Your task to perform on an android device: uninstall "Pinterest" Image 0: 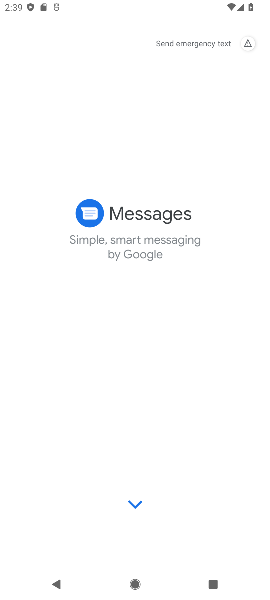
Step 0: press home button
Your task to perform on an android device: uninstall "Pinterest" Image 1: 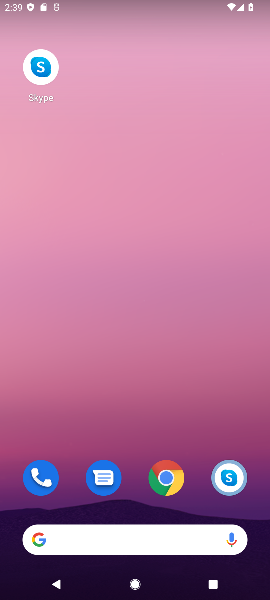
Step 1: press home button
Your task to perform on an android device: uninstall "Pinterest" Image 2: 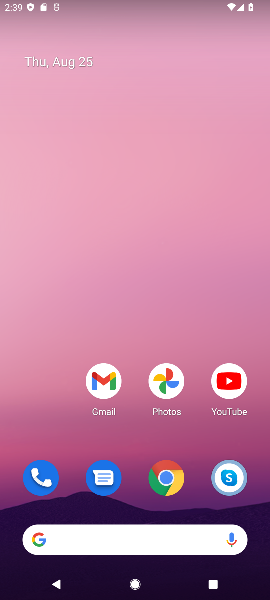
Step 2: drag from (94, 545) to (190, 101)
Your task to perform on an android device: uninstall "Pinterest" Image 3: 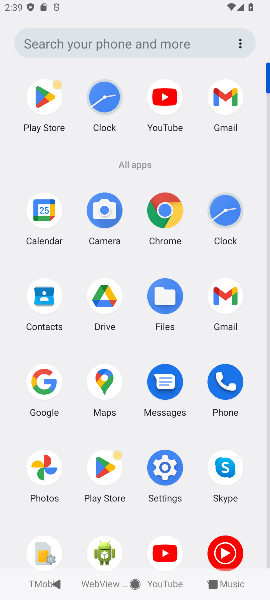
Step 3: drag from (105, 471) to (152, 248)
Your task to perform on an android device: uninstall "Pinterest" Image 4: 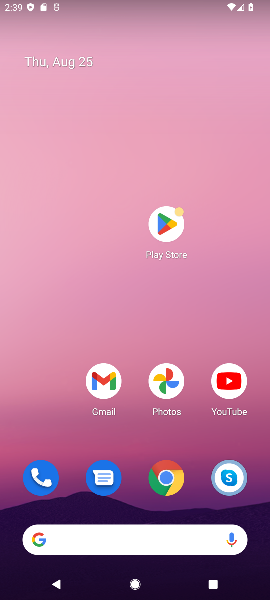
Step 4: click (162, 224)
Your task to perform on an android device: uninstall "Pinterest" Image 5: 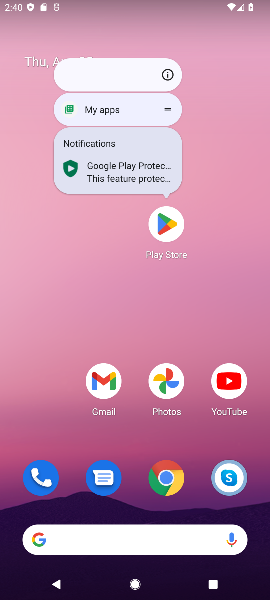
Step 5: click (162, 224)
Your task to perform on an android device: uninstall "Pinterest" Image 6: 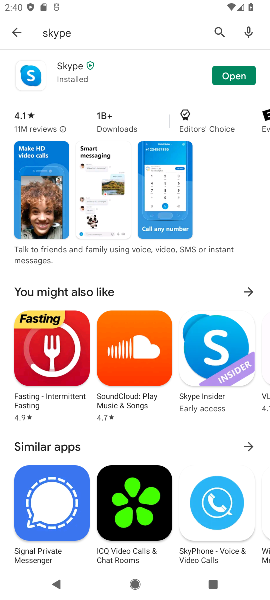
Step 6: click (217, 30)
Your task to perform on an android device: uninstall "Pinterest" Image 7: 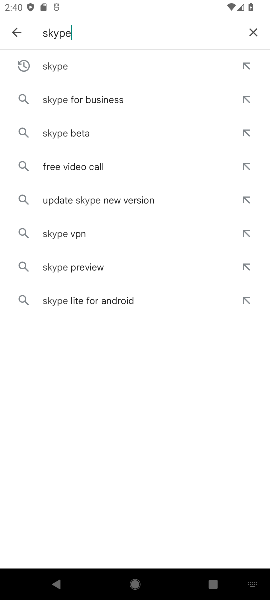
Step 7: click (254, 33)
Your task to perform on an android device: uninstall "Pinterest" Image 8: 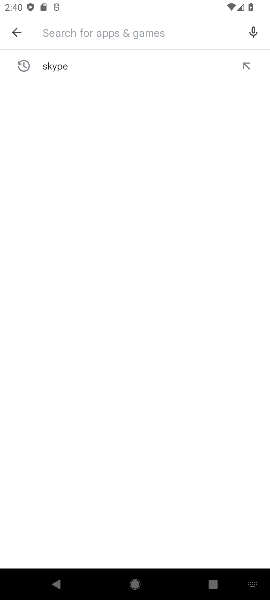
Step 8: type "Pinterest"
Your task to perform on an android device: uninstall "Pinterest" Image 9: 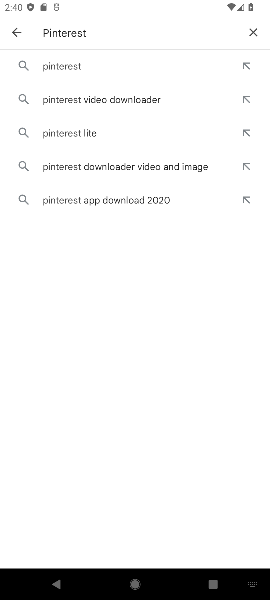
Step 9: click (82, 62)
Your task to perform on an android device: uninstall "Pinterest" Image 10: 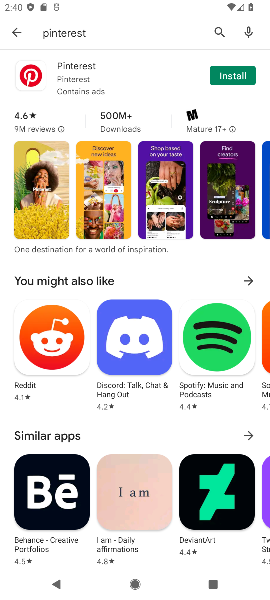
Step 10: task complete